Your task to perform on an android device: Go to location settings Image 0: 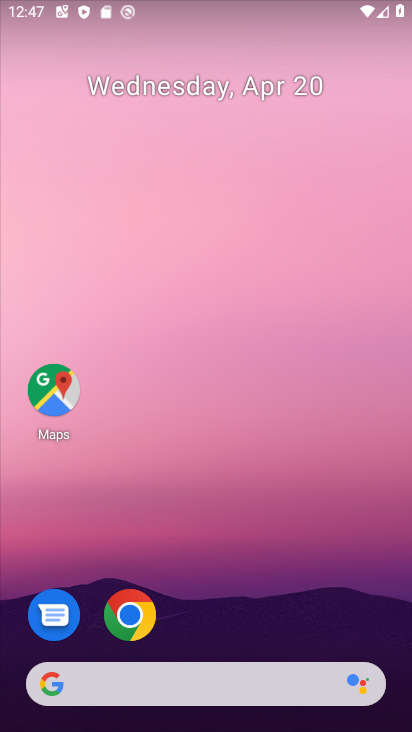
Step 0: drag from (371, 545) to (338, 146)
Your task to perform on an android device: Go to location settings Image 1: 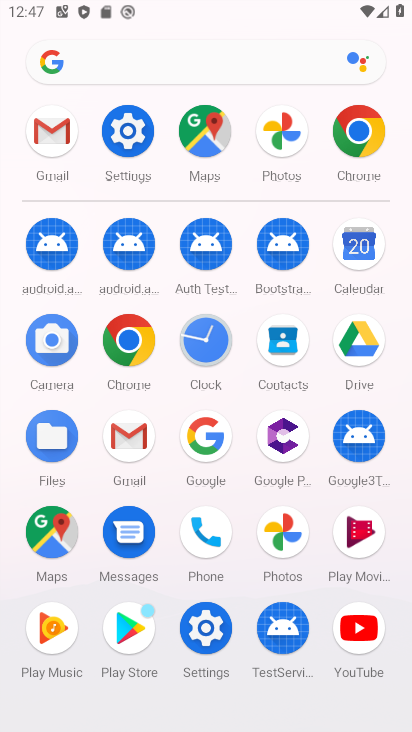
Step 1: click (128, 131)
Your task to perform on an android device: Go to location settings Image 2: 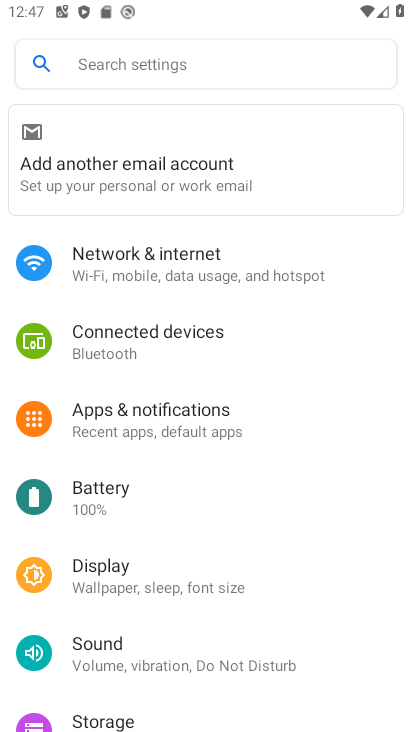
Step 2: drag from (373, 417) to (372, 378)
Your task to perform on an android device: Go to location settings Image 3: 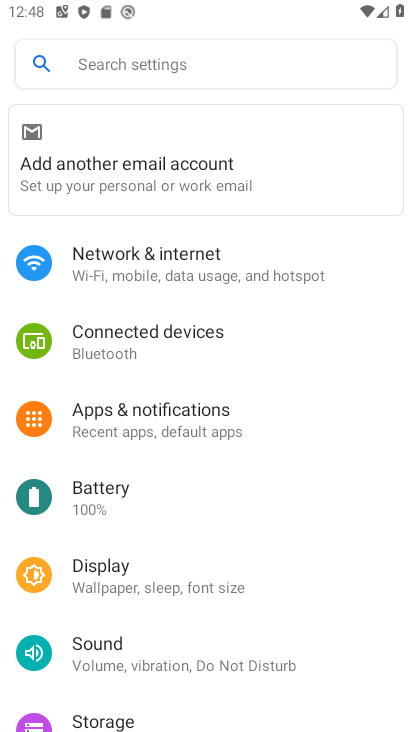
Step 3: drag from (355, 416) to (342, 274)
Your task to perform on an android device: Go to location settings Image 4: 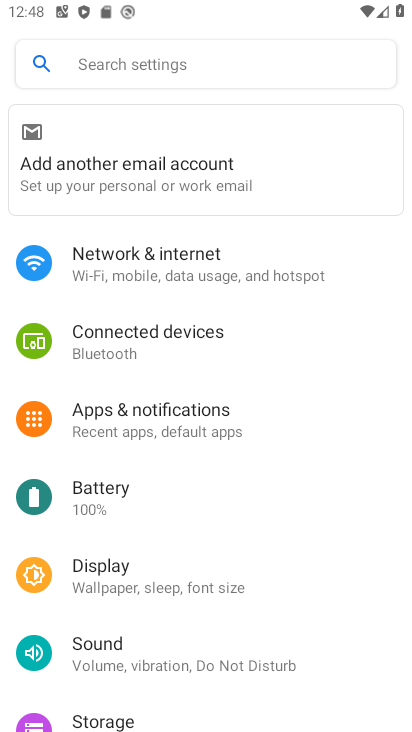
Step 4: drag from (366, 663) to (373, 156)
Your task to perform on an android device: Go to location settings Image 5: 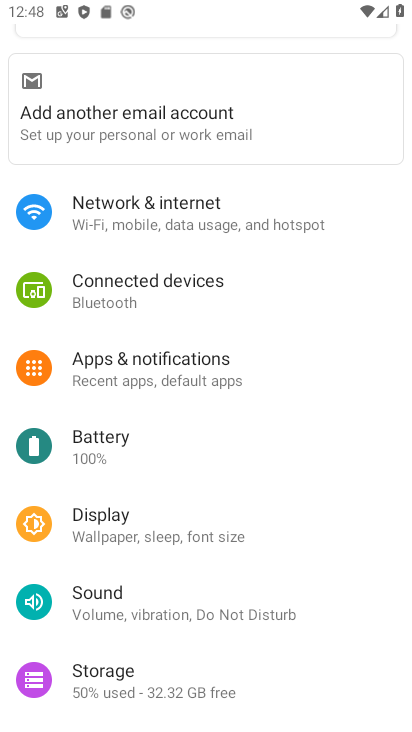
Step 5: drag from (364, 535) to (360, 340)
Your task to perform on an android device: Go to location settings Image 6: 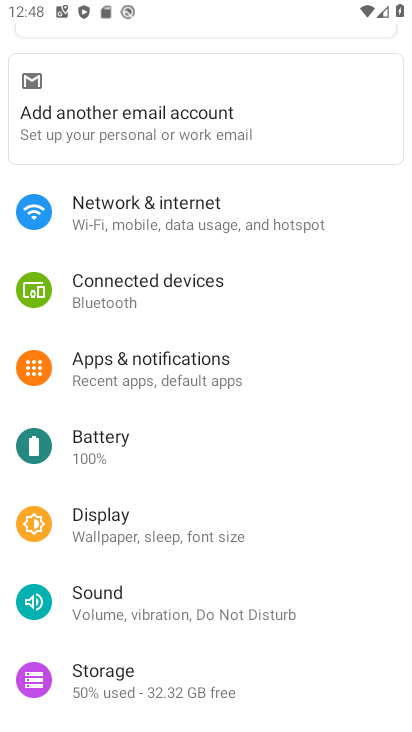
Step 6: drag from (340, 488) to (325, 307)
Your task to perform on an android device: Go to location settings Image 7: 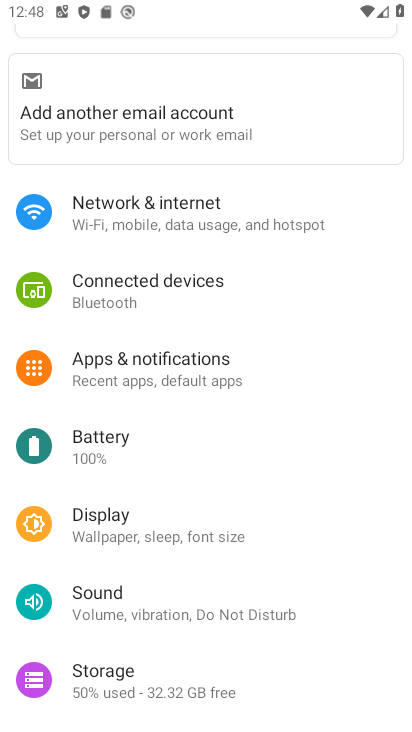
Step 7: drag from (331, 694) to (350, 410)
Your task to perform on an android device: Go to location settings Image 8: 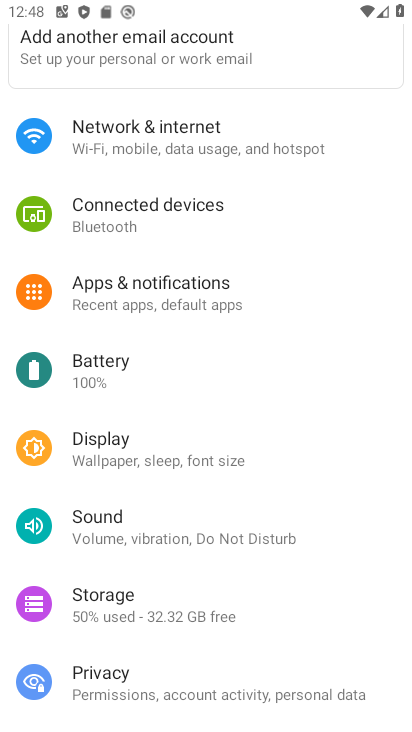
Step 8: drag from (344, 478) to (350, 260)
Your task to perform on an android device: Go to location settings Image 9: 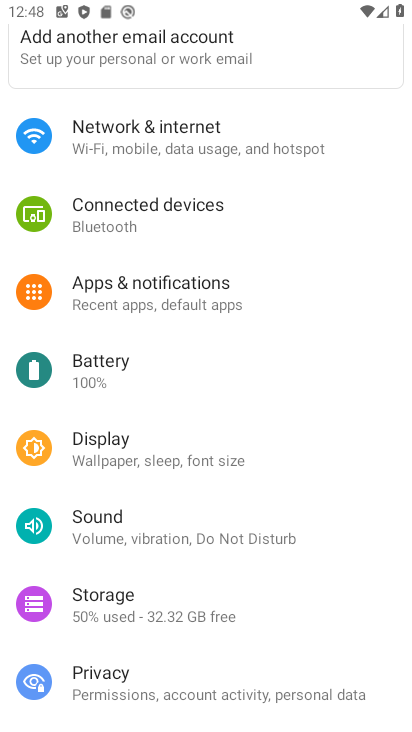
Step 9: drag from (353, 420) to (354, 274)
Your task to perform on an android device: Go to location settings Image 10: 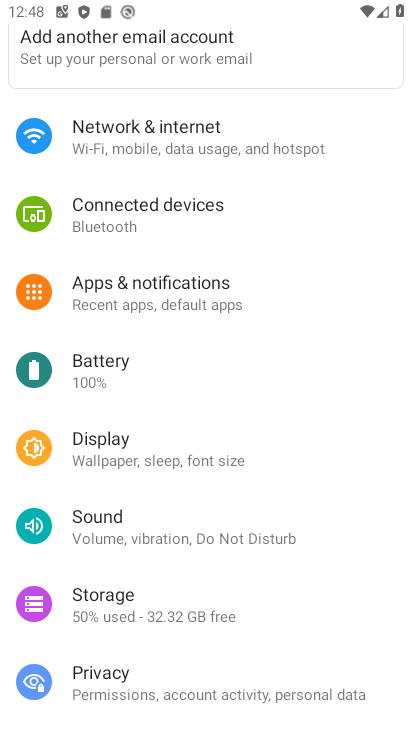
Step 10: drag from (335, 502) to (297, 206)
Your task to perform on an android device: Go to location settings Image 11: 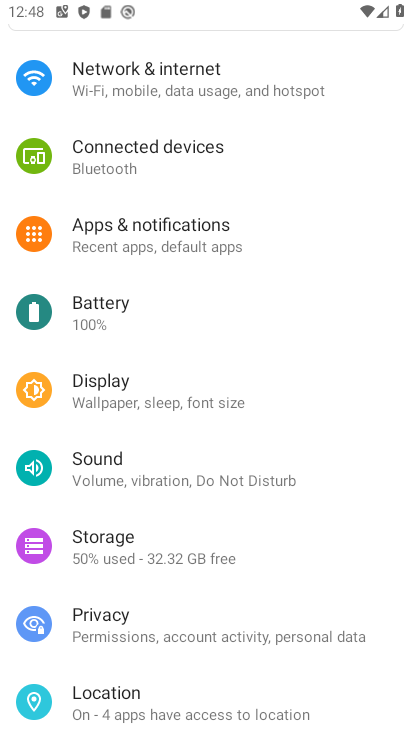
Step 11: click (112, 692)
Your task to perform on an android device: Go to location settings Image 12: 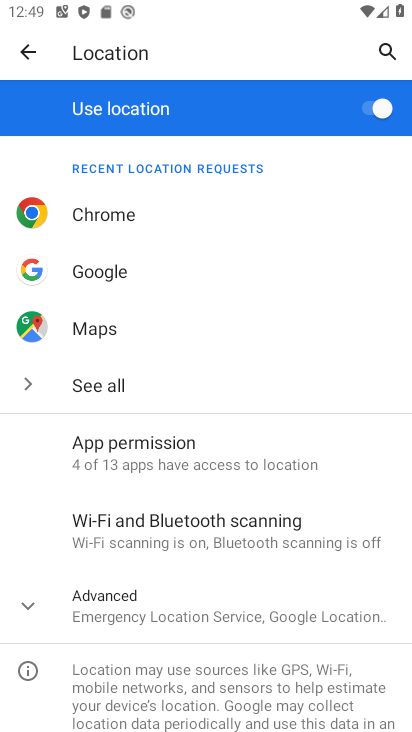
Step 12: drag from (251, 623) to (263, 281)
Your task to perform on an android device: Go to location settings Image 13: 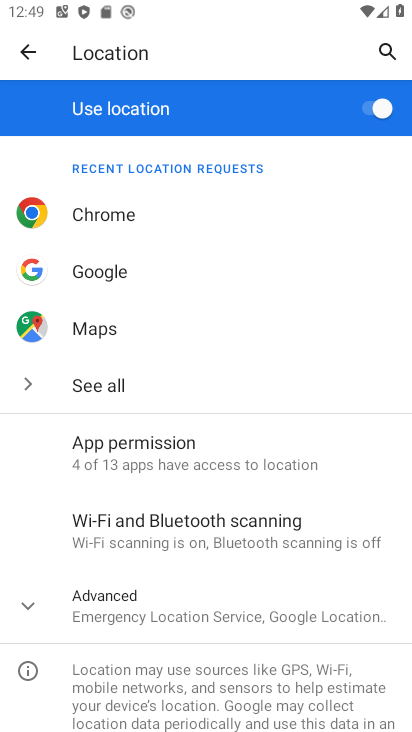
Step 13: drag from (262, 590) to (265, 326)
Your task to perform on an android device: Go to location settings Image 14: 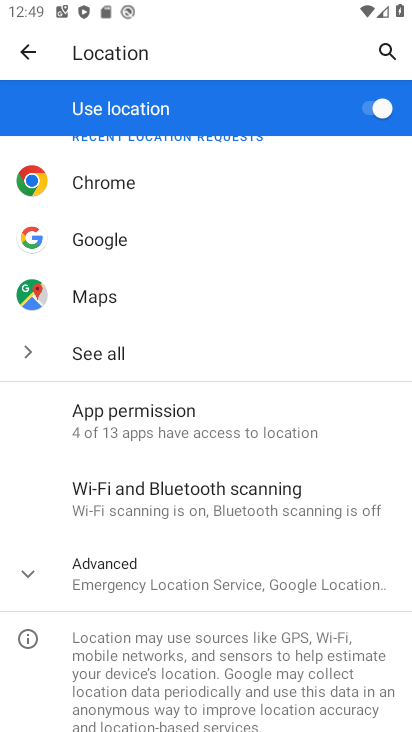
Step 14: drag from (245, 635) to (253, 298)
Your task to perform on an android device: Go to location settings Image 15: 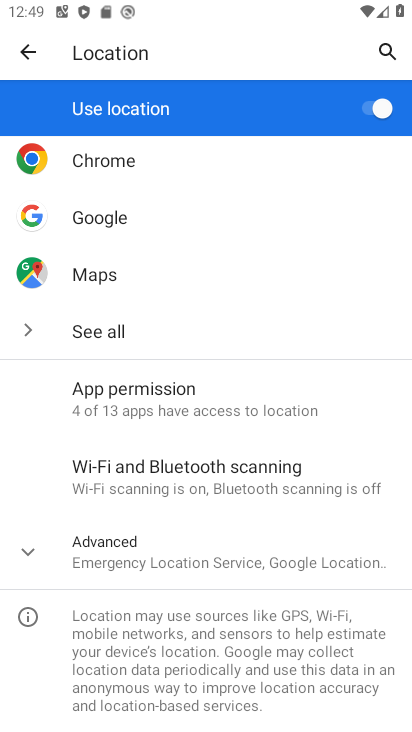
Step 15: drag from (245, 443) to (257, 283)
Your task to perform on an android device: Go to location settings Image 16: 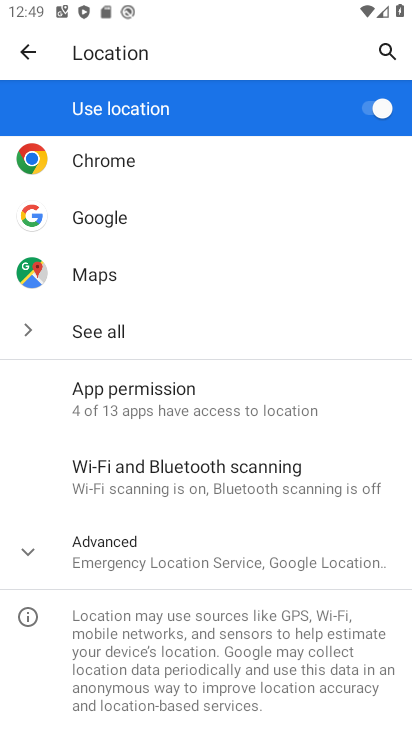
Step 16: drag from (266, 442) to (276, 247)
Your task to perform on an android device: Go to location settings Image 17: 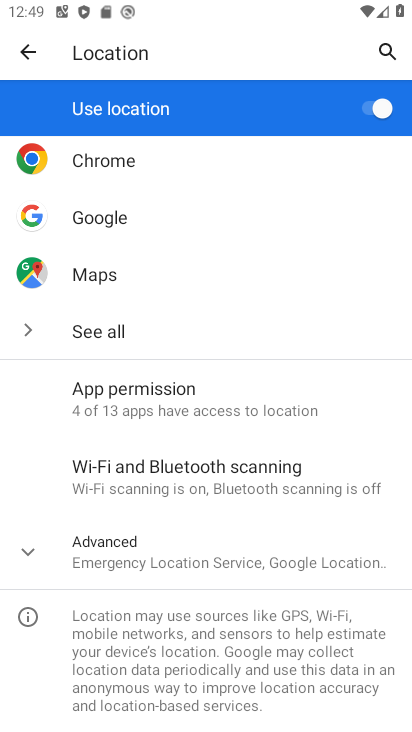
Step 17: drag from (246, 625) to (250, 307)
Your task to perform on an android device: Go to location settings Image 18: 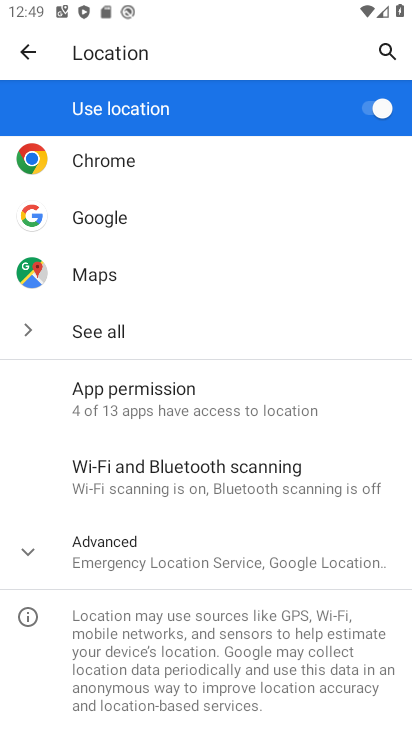
Step 18: click (26, 555)
Your task to perform on an android device: Go to location settings Image 19: 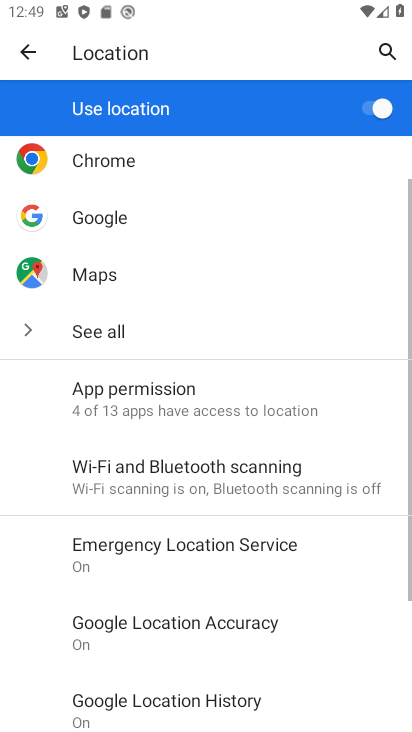
Step 19: task complete